Your task to perform on an android device: Search for macbook pro 13 inch on target.com, select the first entry, add it to the cart, then select checkout. Image 0: 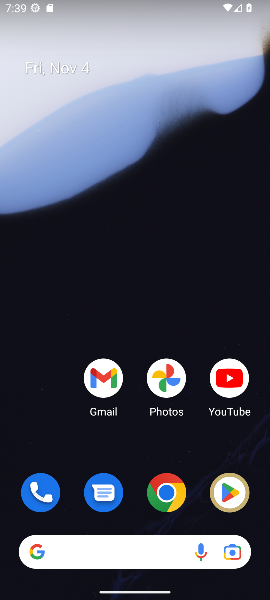
Step 0: drag from (126, 443) to (206, 5)
Your task to perform on an android device: Search for macbook pro 13 inch on target.com, select the first entry, add it to the cart, then select checkout. Image 1: 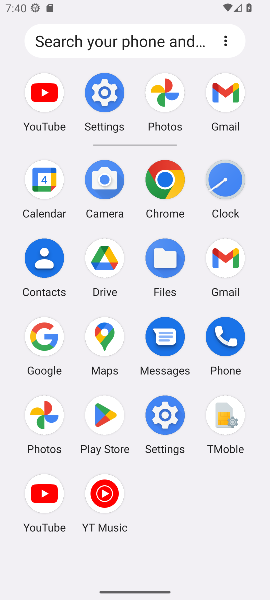
Step 1: click (167, 176)
Your task to perform on an android device: Search for macbook pro 13 inch on target.com, select the first entry, add it to the cart, then select checkout. Image 2: 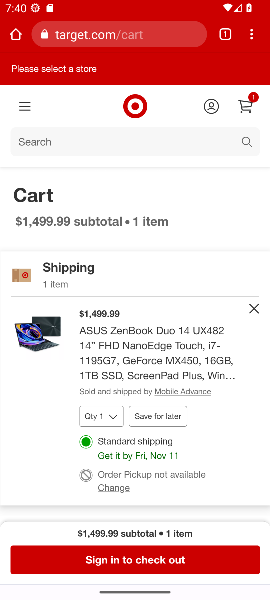
Step 2: click (150, 138)
Your task to perform on an android device: Search for macbook pro 13 inch on target.com, select the first entry, add it to the cart, then select checkout. Image 3: 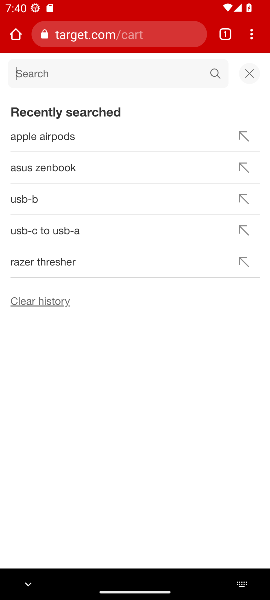
Step 3: type "macbook pro 13 inch"
Your task to perform on an android device: Search for macbook pro 13 inch on target.com, select the first entry, add it to the cart, then select checkout. Image 4: 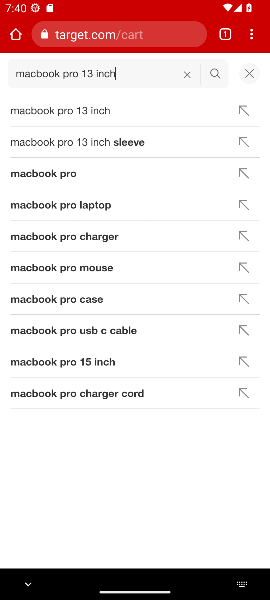
Step 4: press enter
Your task to perform on an android device: Search for macbook pro 13 inch on target.com, select the first entry, add it to the cart, then select checkout. Image 5: 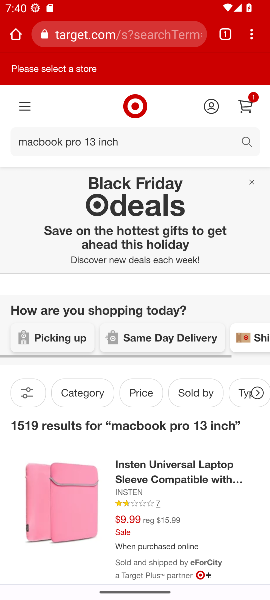
Step 5: task complete